Your task to perform on an android device: Search for energizer triple a on ebay.com, select the first entry, add it to the cart, then select checkout. Image 0: 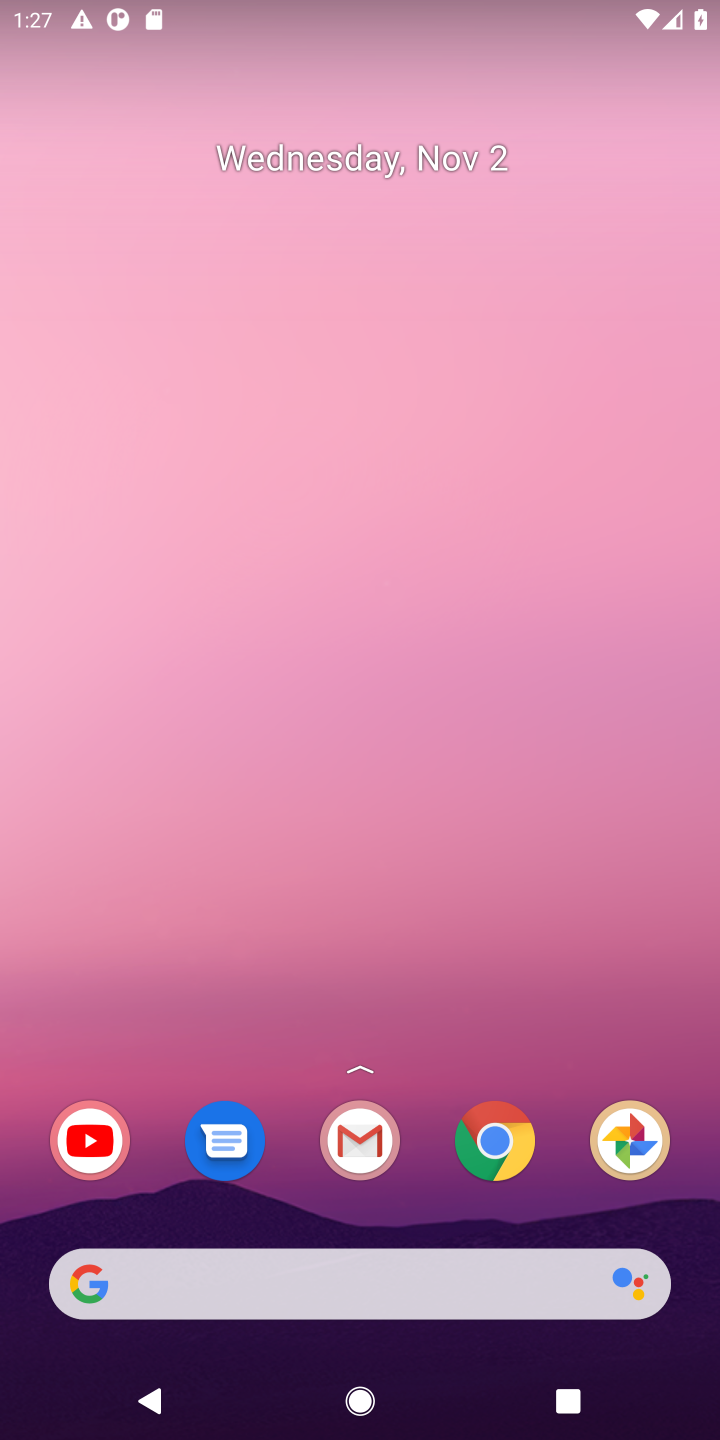
Step 0: press home button
Your task to perform on an android device: Search for energizer triple a on ebay.com, select the first entry, add it to the cart, then select checkout. Image 1: 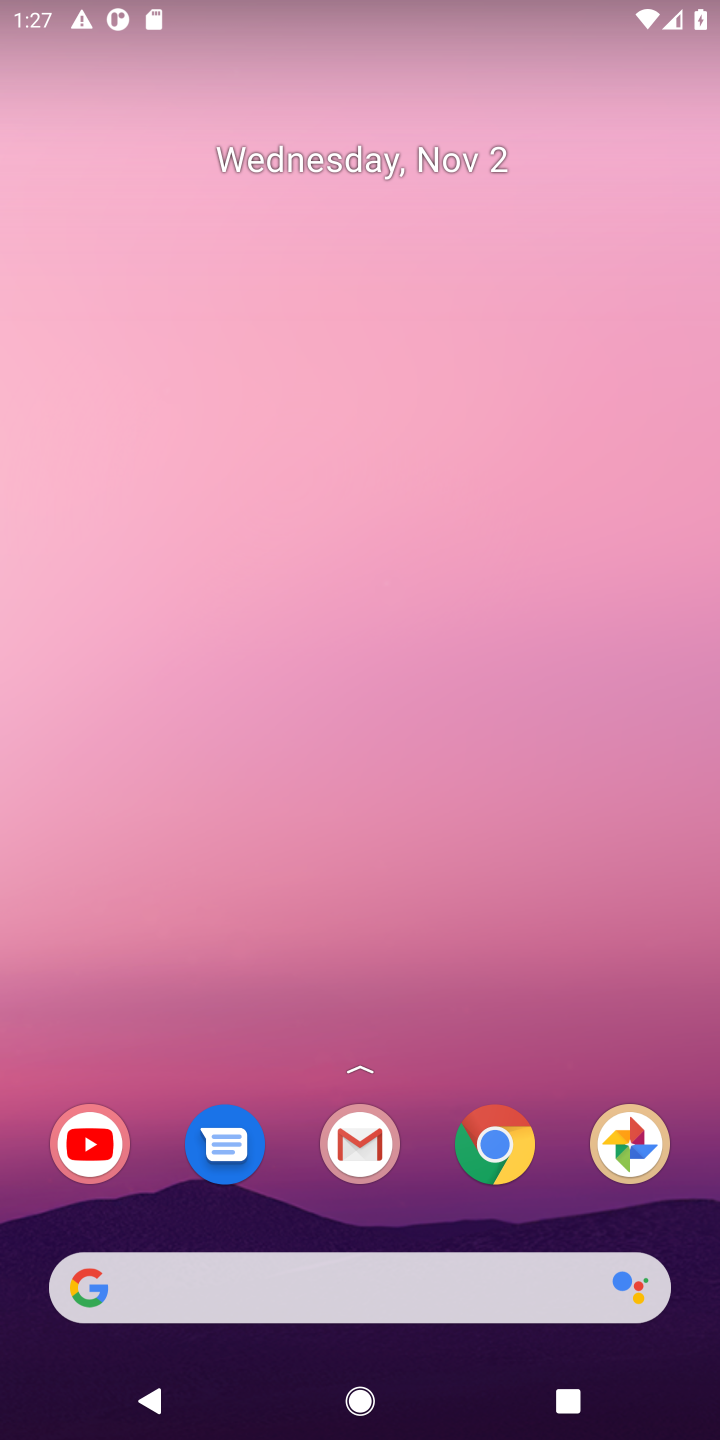
Step 1: press home button
Your task to perform on an android device: Search for energizer triple a on ebay.com, select the first entry, add it to the cart, then select checkout. Image 2: 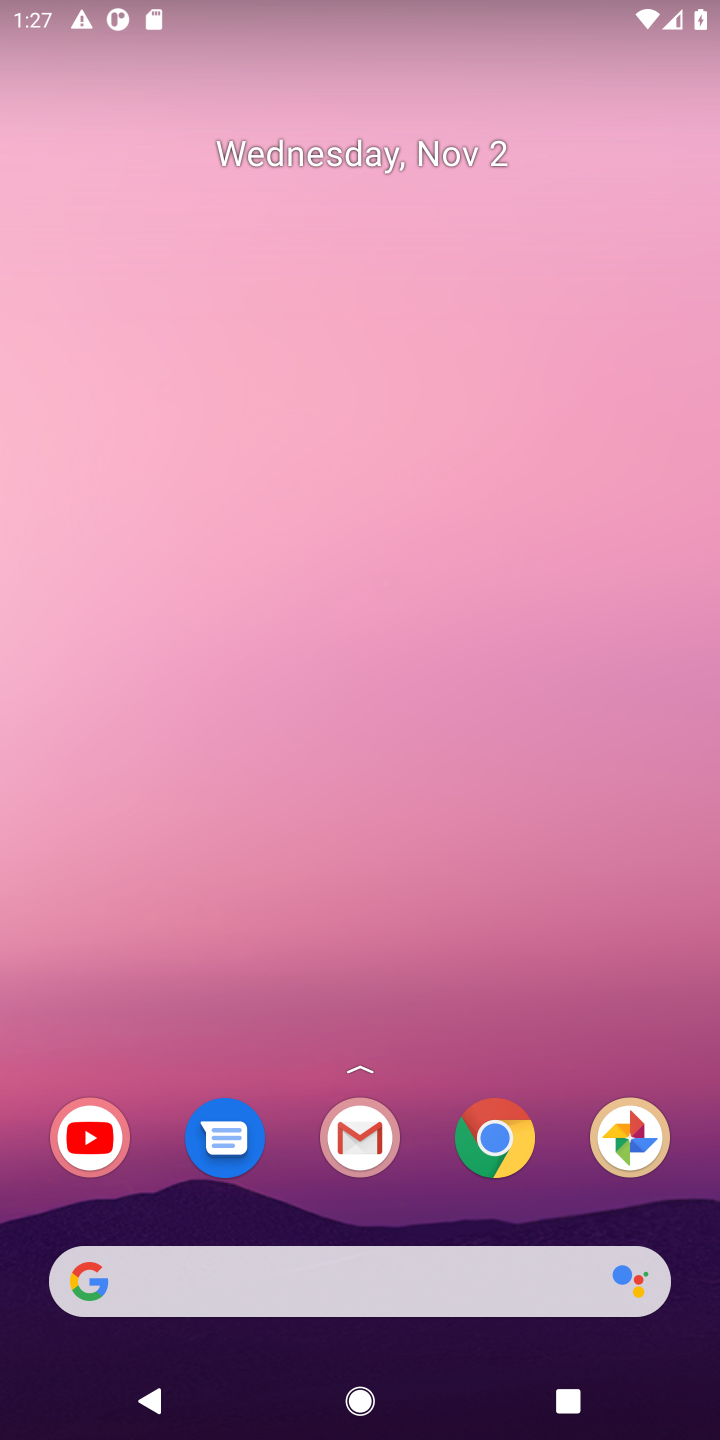
Step 2: click (181, 1267)
Your task to perform on an android device: Search for energizer triple a on ebay.com, select the first entry, add it to the cart, then select checkout. Image 3: 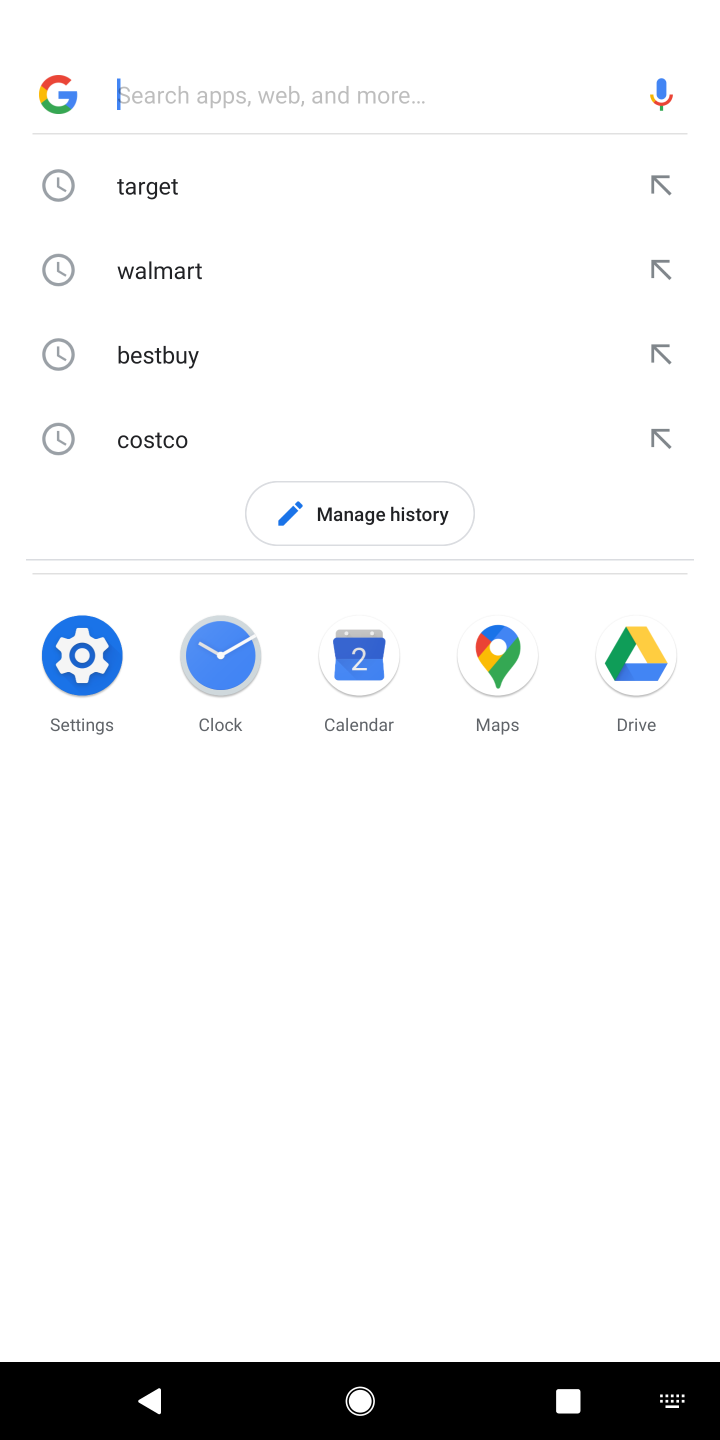
Step 3: press enter
Your task to perform on an android device: Search for energizer triple a on ebay.com, select the first entry, add it to the cart, then select checkout. Image 4: 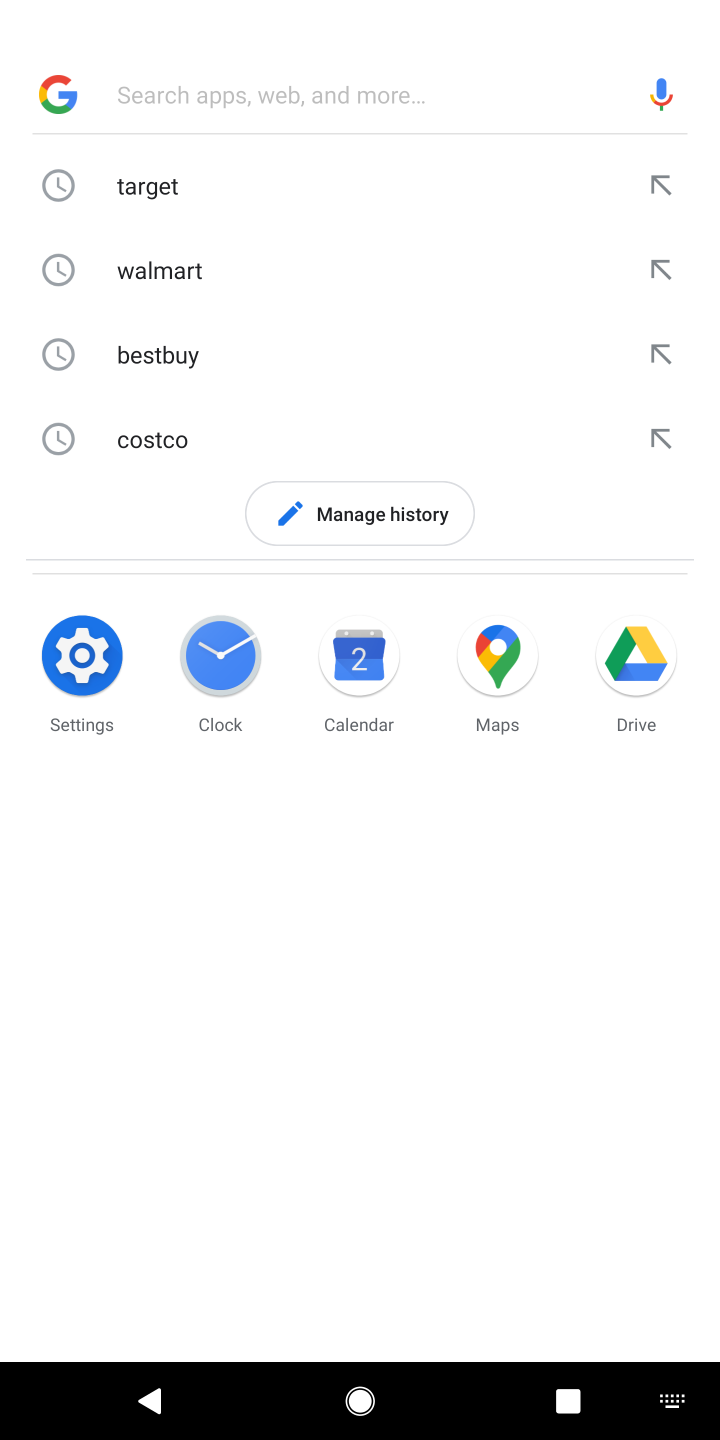
Step 4: type "ebay.com"
Your task to perform on an android device: Search for energizer triple a on ebay.com, select the first entry, add it to the cart, then select checkout. Image 5: 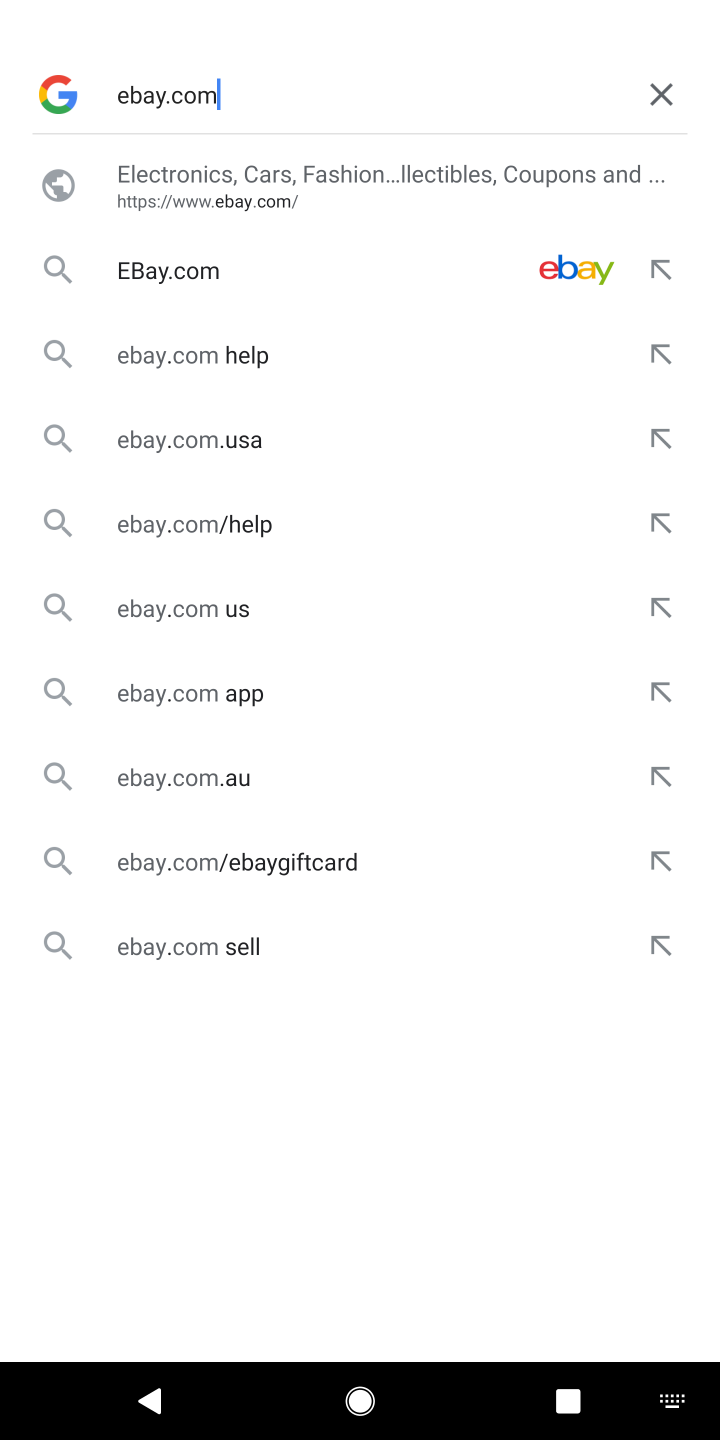
Step 5: press enter
Your task to perform on an android device: Search for energizer triple a on ebay.com, select the first entry, add it to the cart, then select checkout. Image 6: 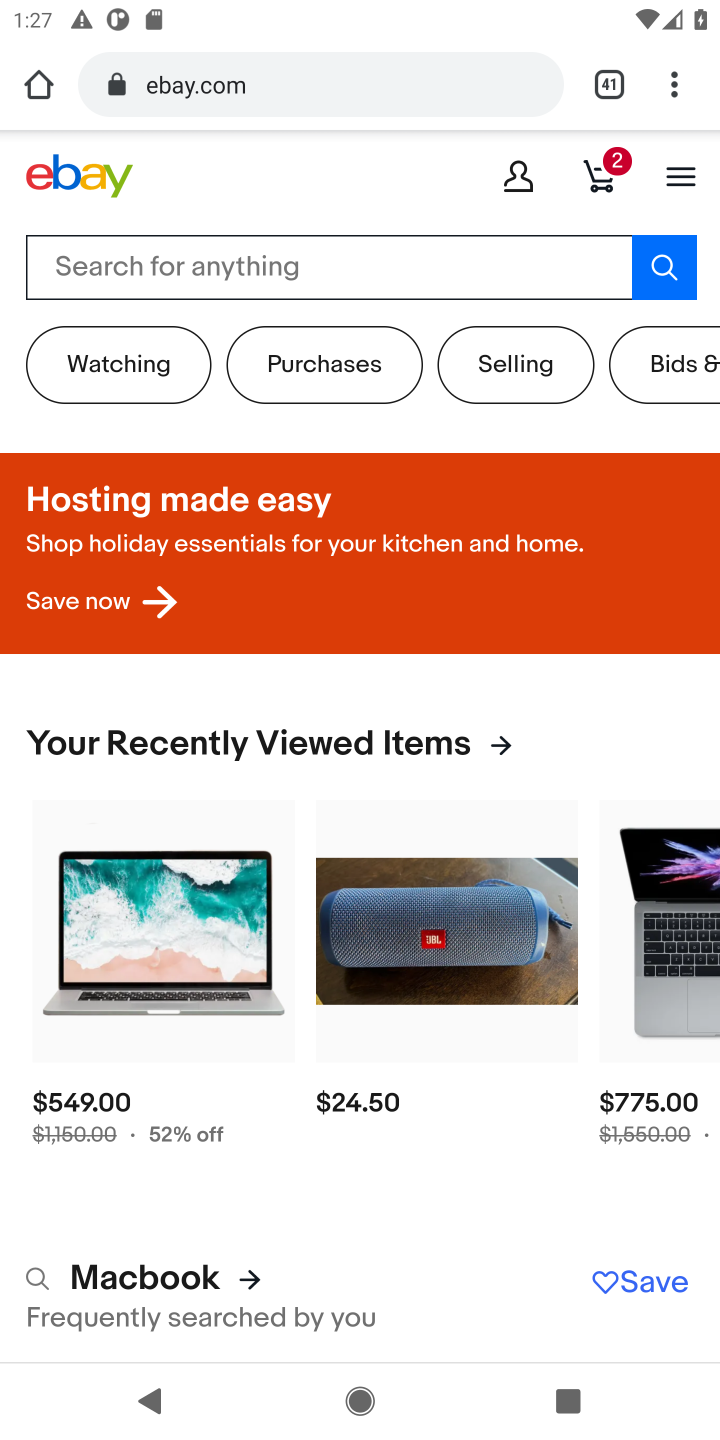
Step 6: click (166, 256)
Your task to perform on an android device: Search for energizer triple a on ebay.com, select the first entry, add it to the cart, then select checkout. Image 7: 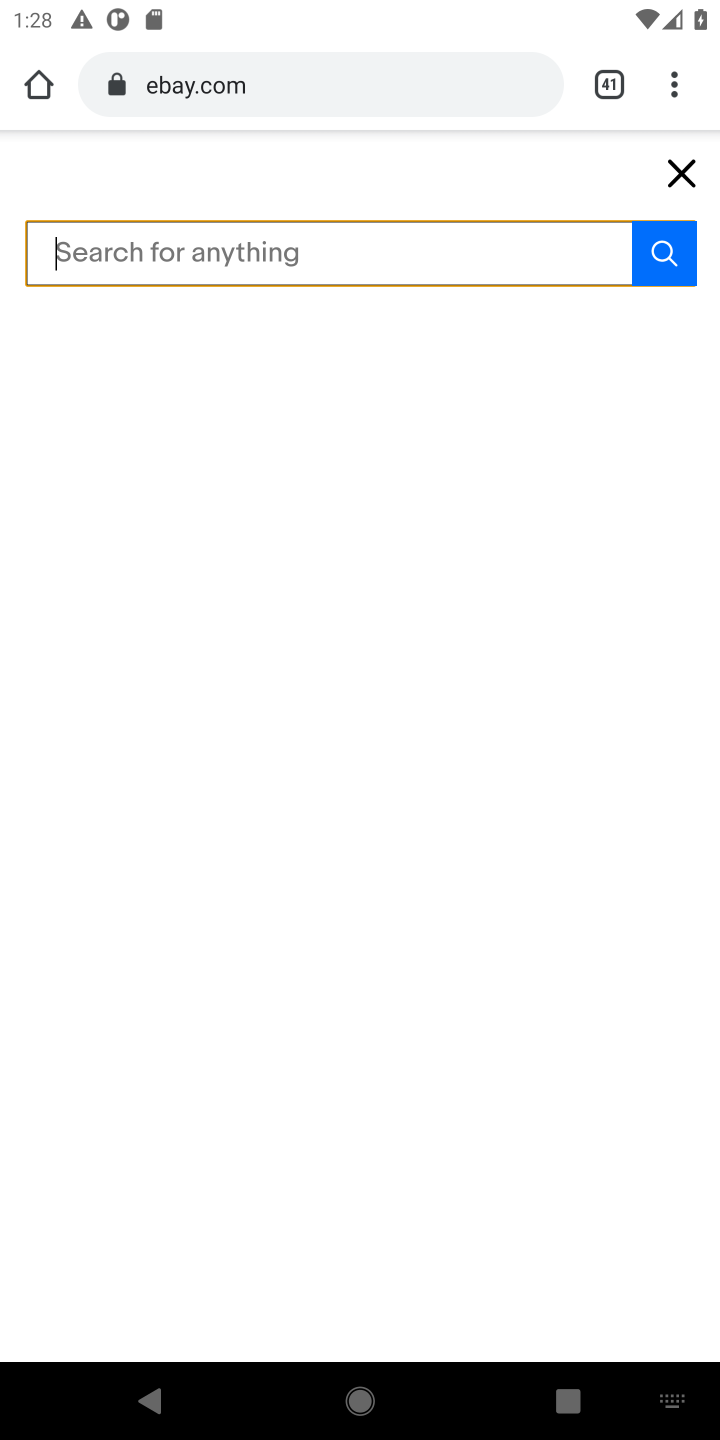
Step 7: type " energizer triple a "
Your task to perform on an android device: Search for energizer triple a on ebay.com, select the first entry, add it to the cart, then select checkout. Image 8: 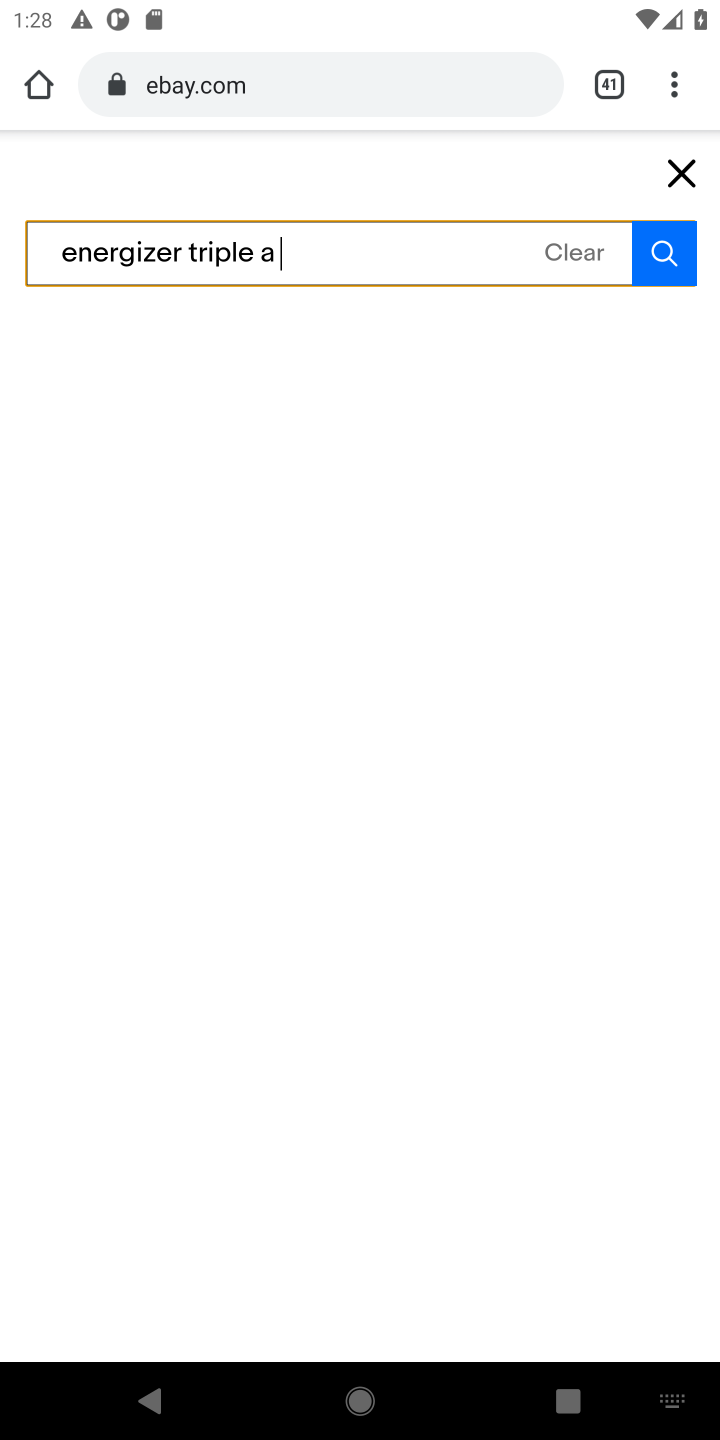
Step 8: press enter
Your task to perform on an android device: Search for energizer triple a on ebay.com, select the first entry, add it to the cart, then select checkout. Image 9: 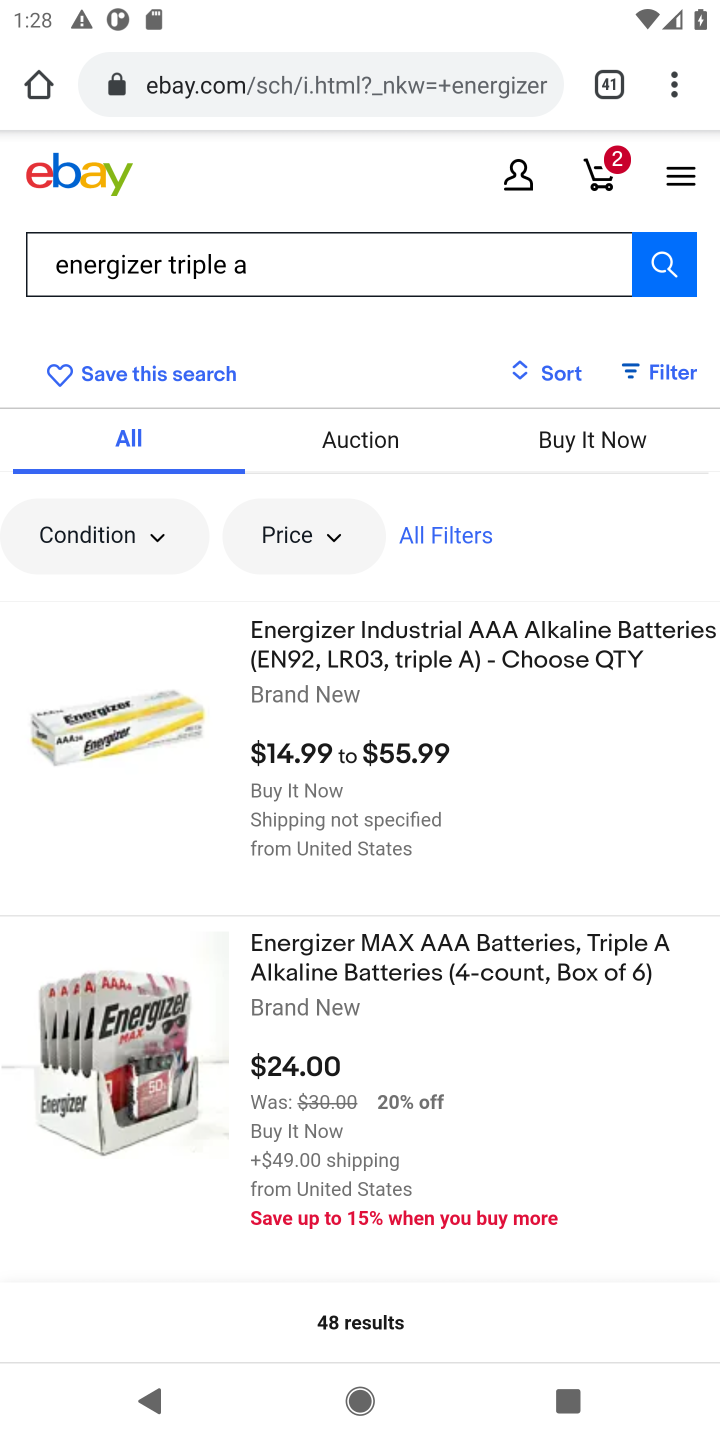
Step 9: drag from (520, 1060) to (506, 821)
Your task to perform on an android device: Search for energizer triple a on ebay.com, select the first entry, add it to the cart, then select checkout. Image 10: 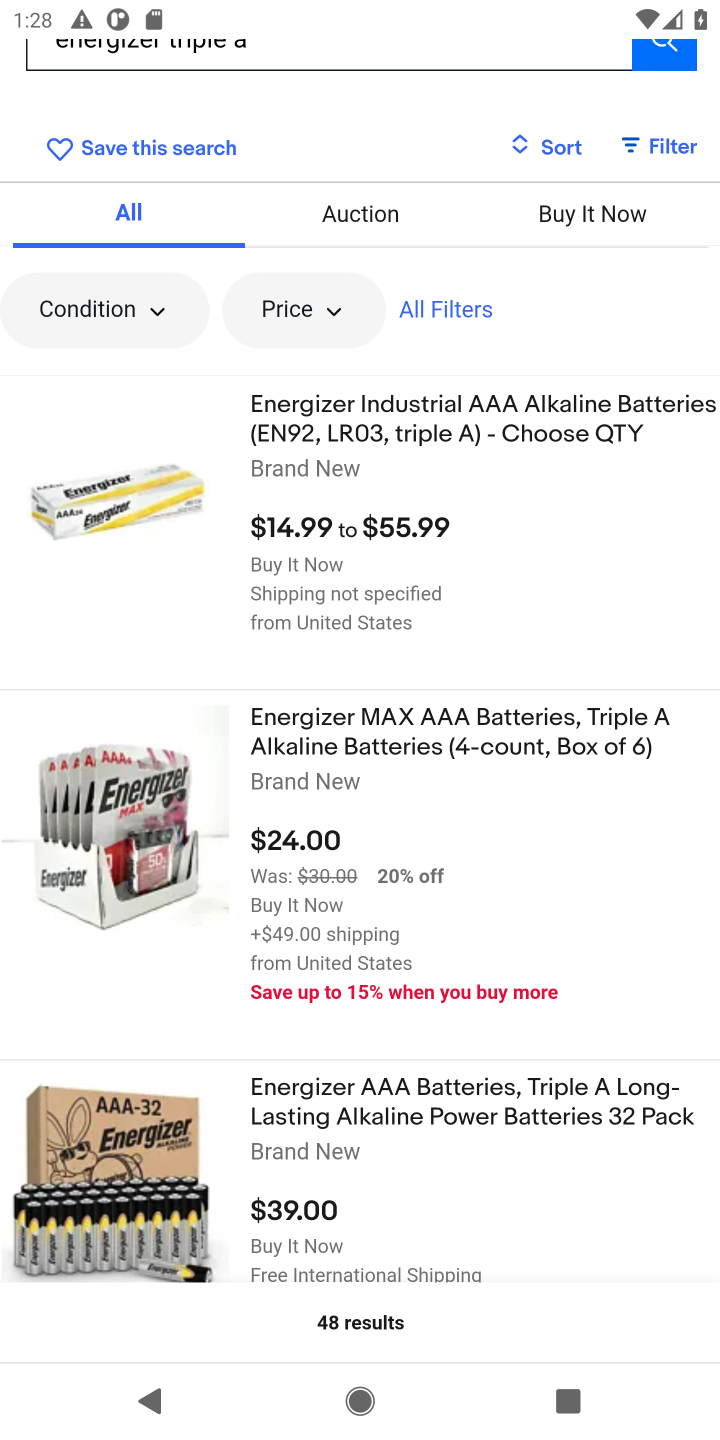
Step 10: click (385, 722)
Your task to perform on an android device: Search for energizer triple a on ebay.com, select the first entry, add it to the cart, then select checkout. Image 11: 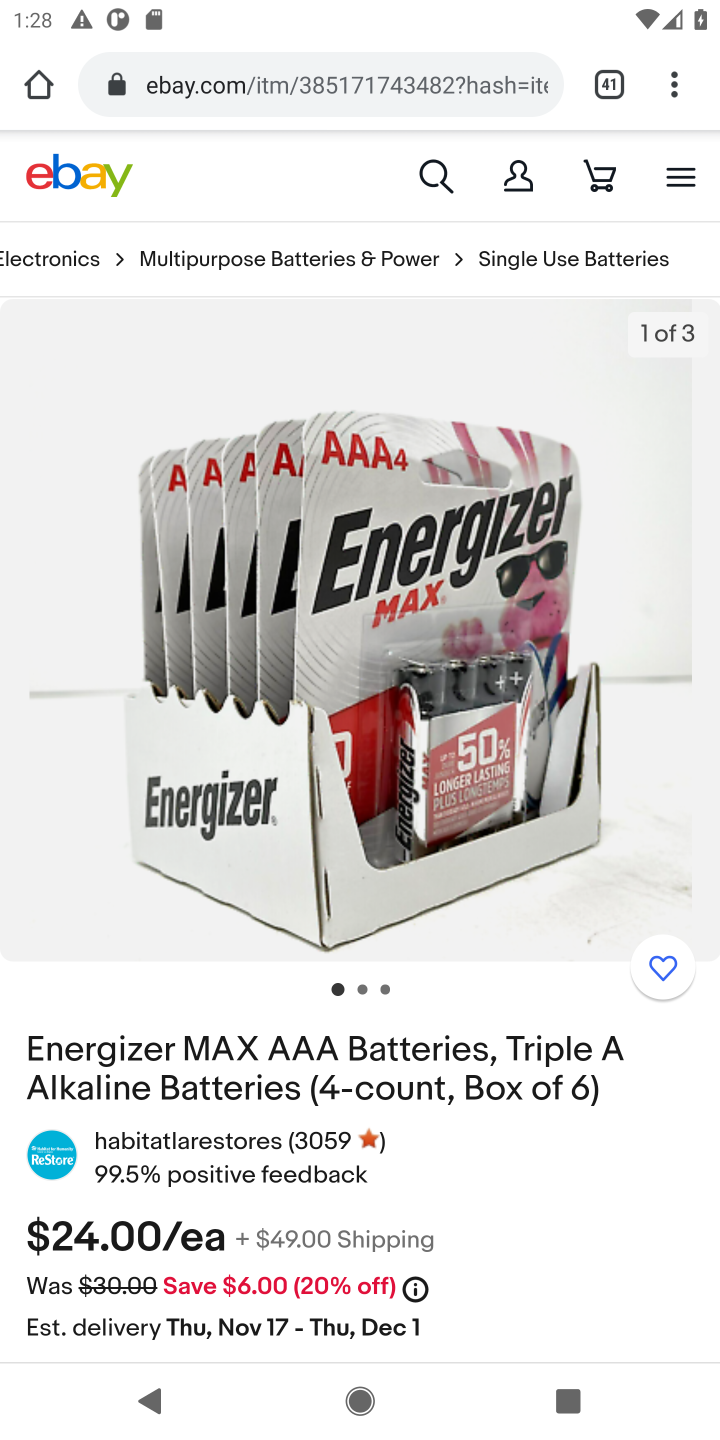
Step 11: drag from (428, 1172) to (431, 768)
Your task to perform on an android device: Search for energizer triple a on ebay.com, select the first entry, add it to the cart, then select checkout. Image 12: 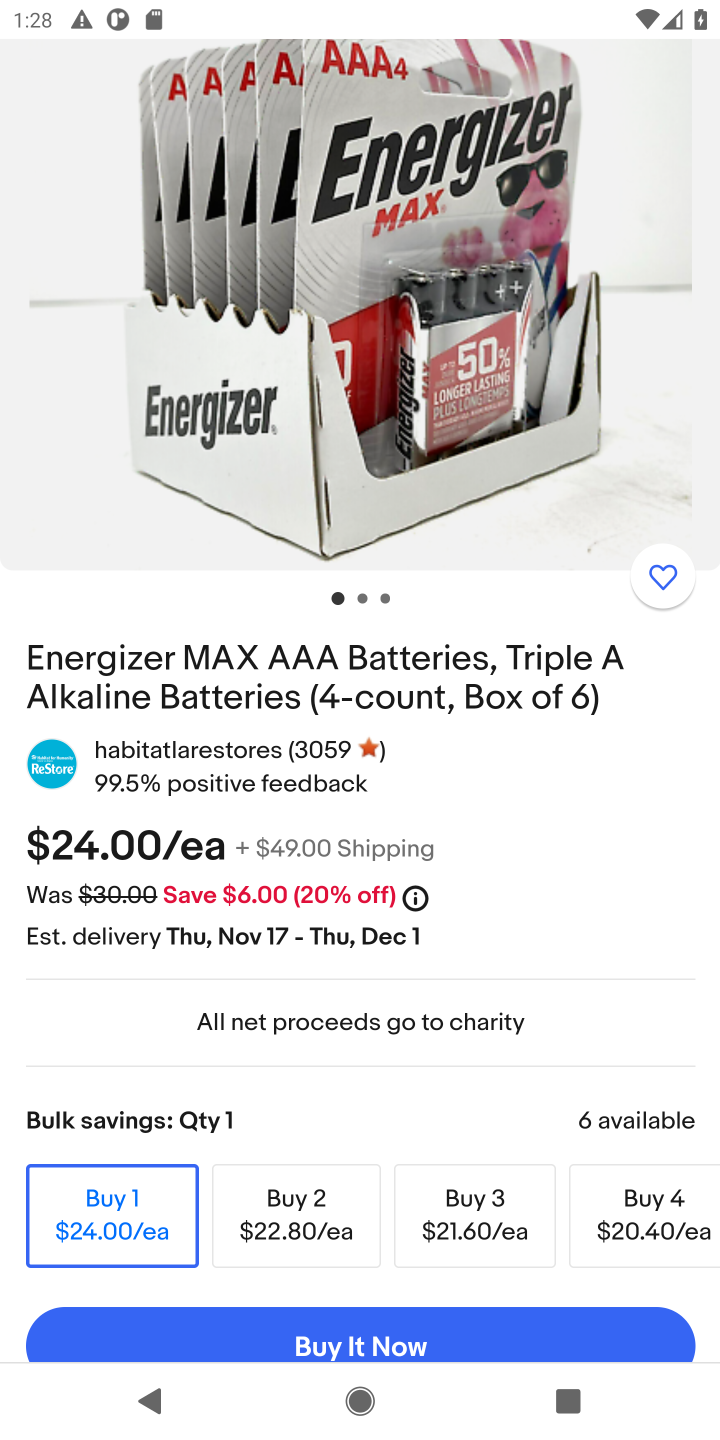
Step 12: drag from (428, 1090) to (447, 643)
Your task to perform on an android device: Search for energizer triple a on ebay.com, select the first entry, add it to the cart, then select checkout. Image 13: 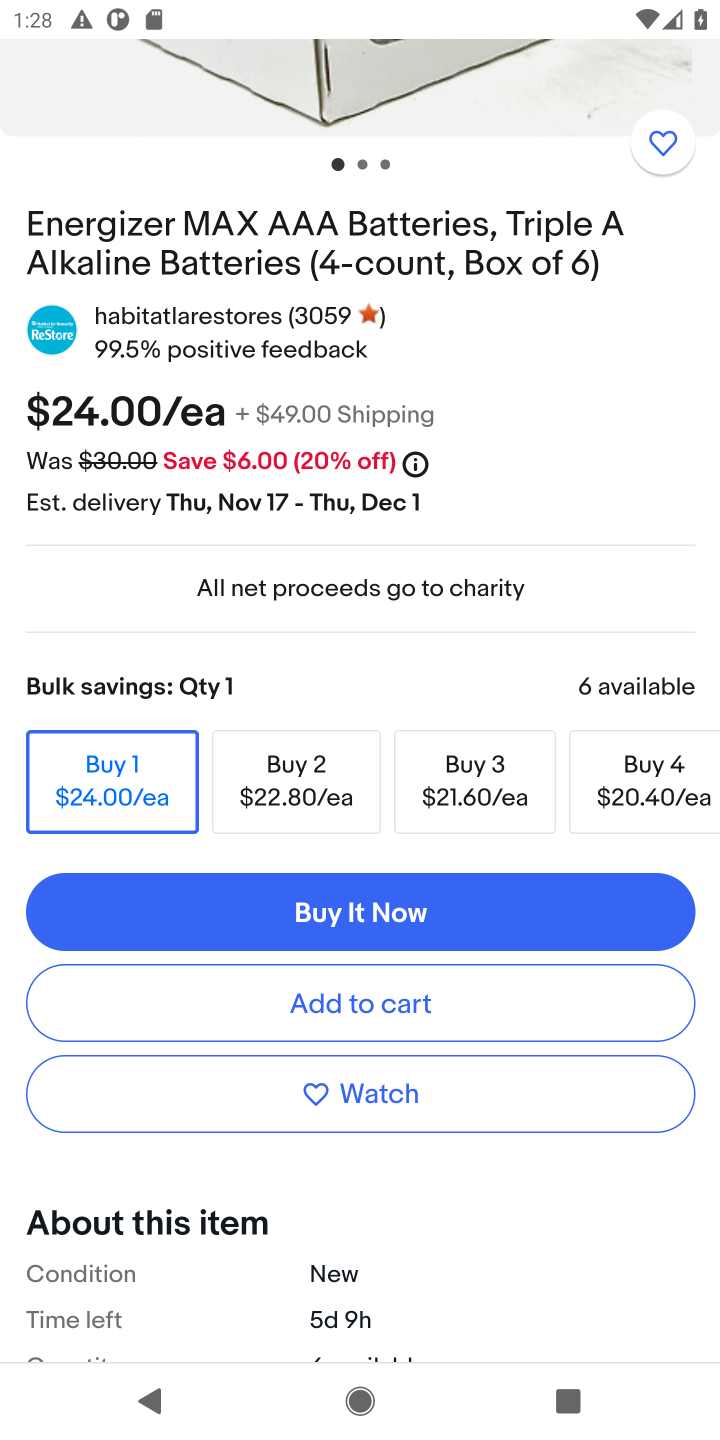
Step 13: click (372, 991)
Your task to perform on an android device: Search for energizer triple a on ebay.com, select the first entry, add it to the cart, then select checkout. Image 14: 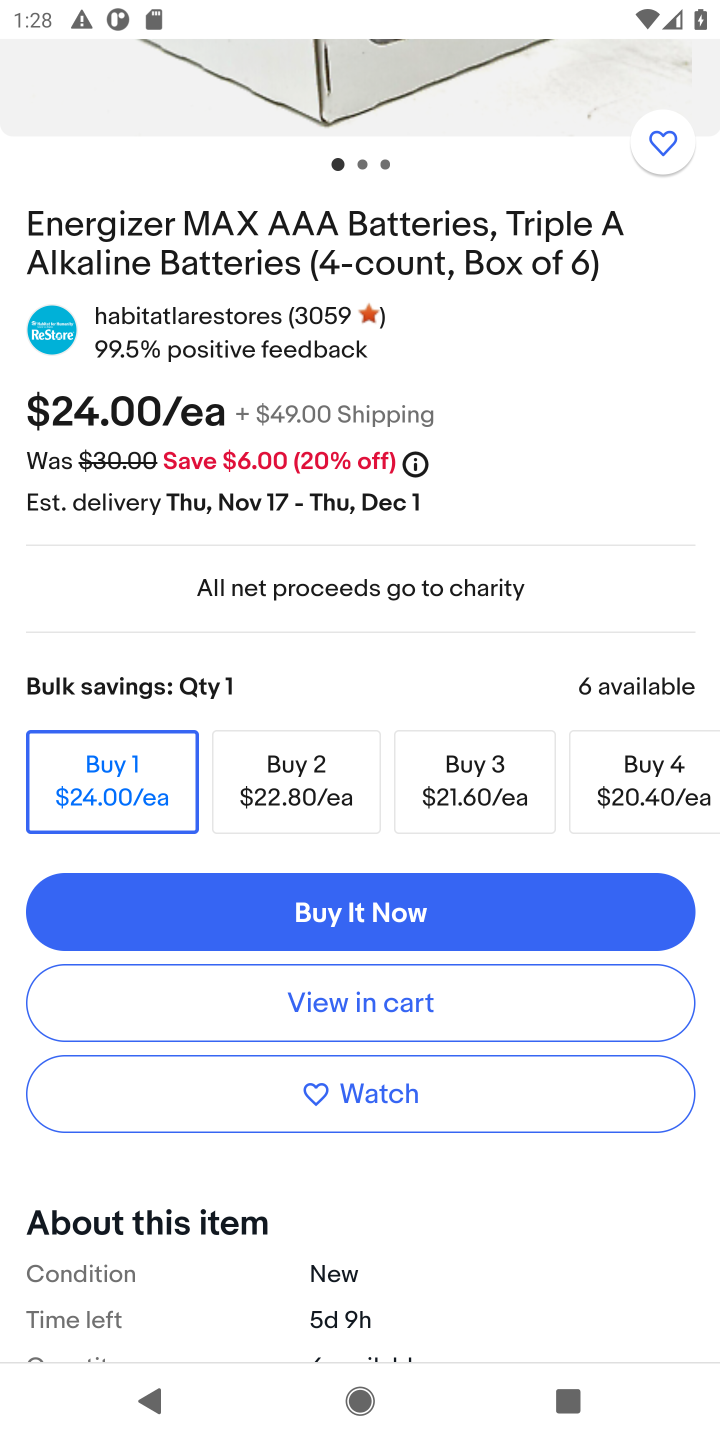
Step 14: click (403, 1000)
Your task to perform on an android device: Search for energizer triple a on ebay.com, select the first entry, add it to the cart, then select checkout. Image 15: 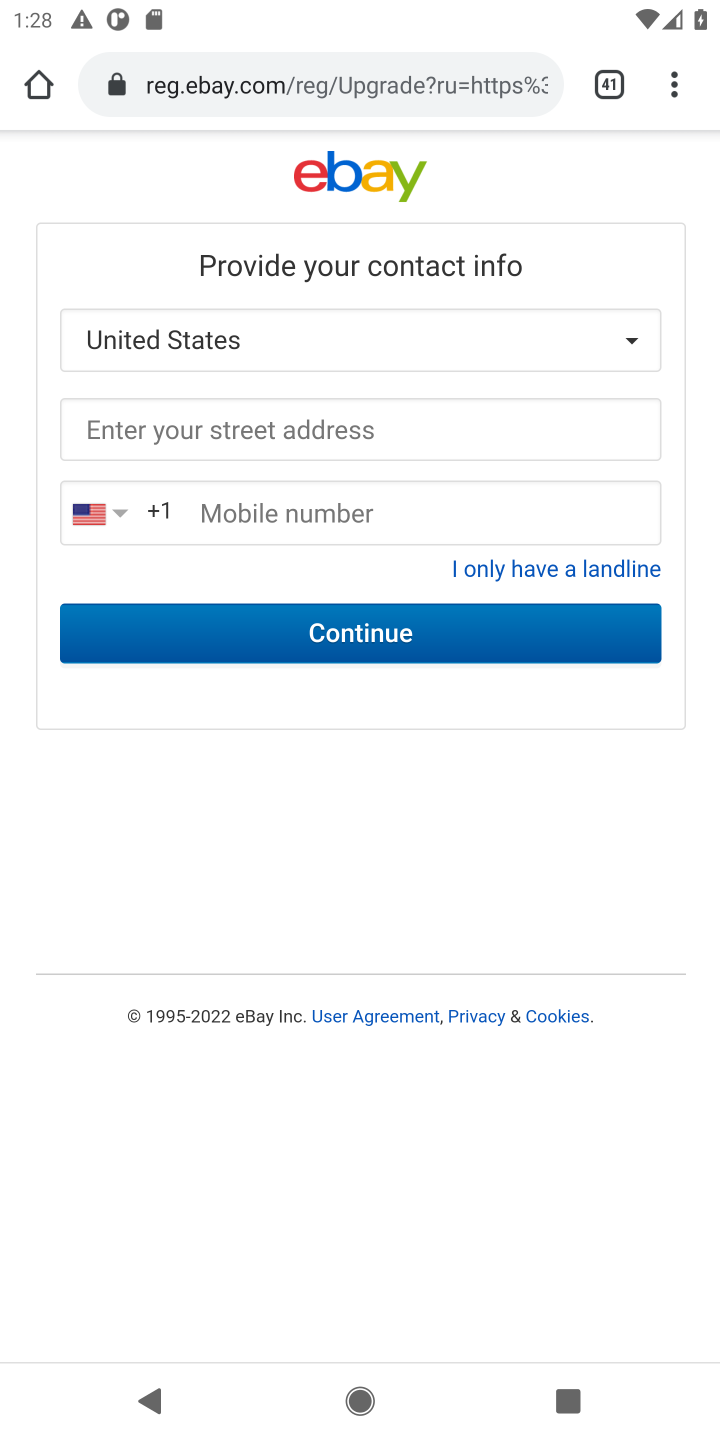
Step 15: task complete